Your task to perform on an android device: change the clock display to show seconds Image 0: 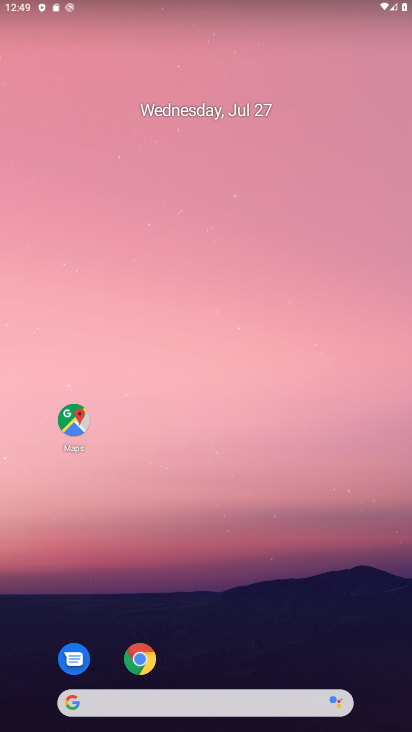
Step 0: drag from (336, 598) to (286, 22)
Your task to perform on an android device: change the clock display to show seconds Image 1: 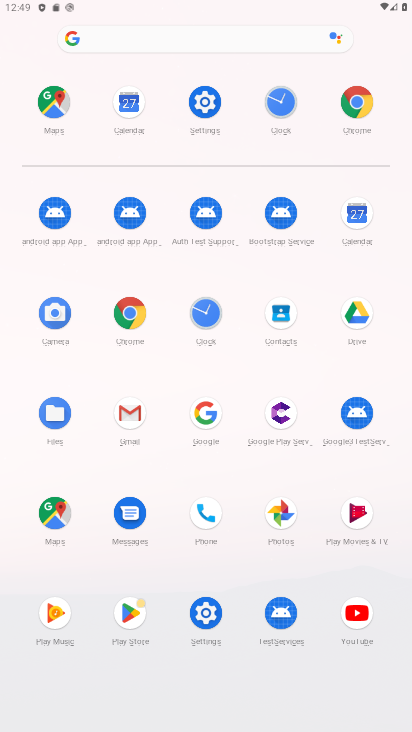
Step 1: click (271, 111)
Your task to perform on an android device: change the clock display to show seconds Image 2: 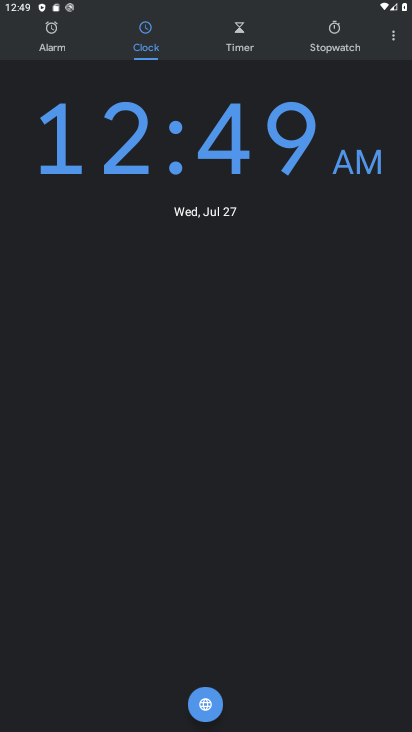
Step 2: click (390, 39)
Your task to perform on an android device: change the clock display to show seconds Image 3: 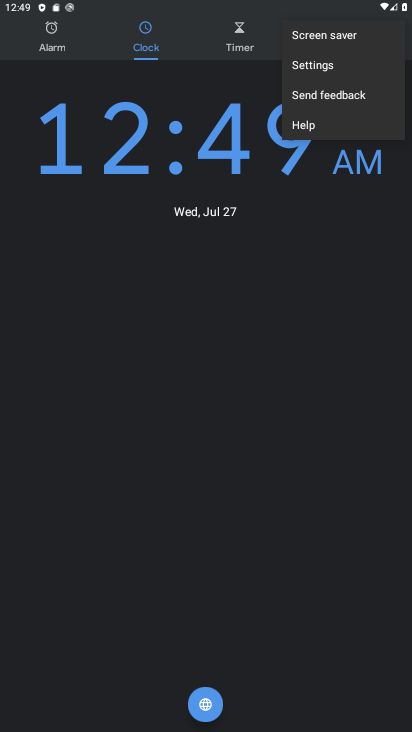
Step 3: click (316, 69)
Your task to perform on an android device: change the clock display to show seconds Image 4: 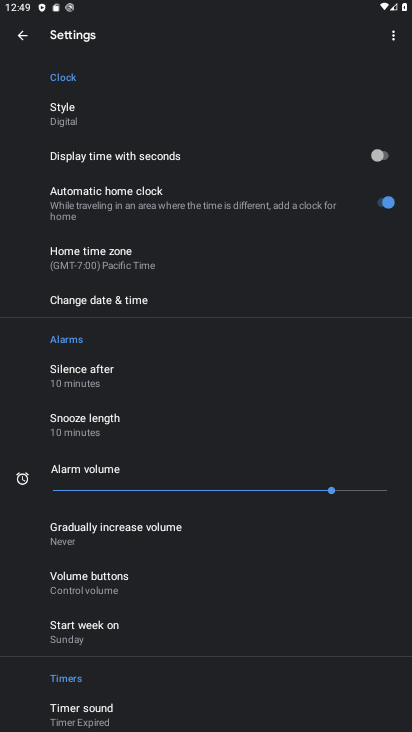
Step 4: click (337, 154)
Your task to perform on an android device: change the clock display to show seconds Image 5: 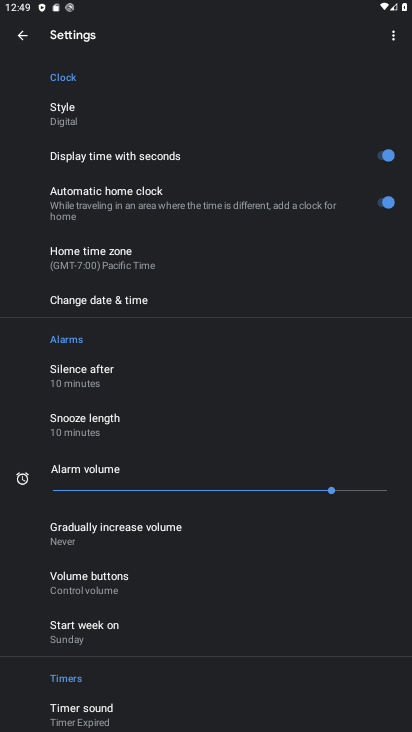
Step 5: task complete